Your task to perform on an android device: Nike Air Max 2020 shoes on Nike.com Image 0: 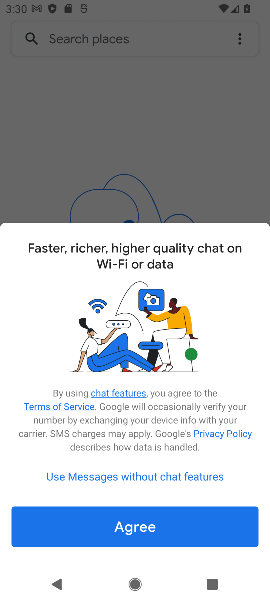
Step 0: press home button
Your task to perform on an android device: Nike Air Max 2020 shoes on Nike.com Image 1: 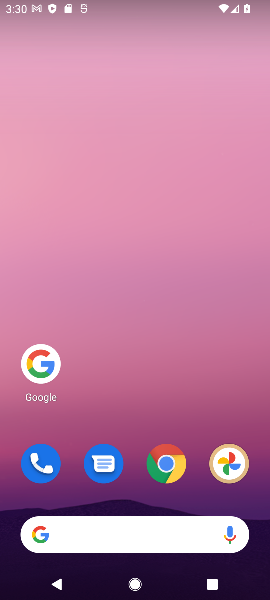
Step 1: click (45, 354)
Your task to perform on an android device: Nike Air Max 2020 shoes on Nike.com Image 2: 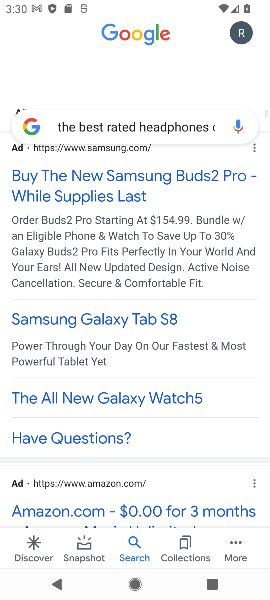
Step 2: click (198, 122)
Your task to perform on an android device: Nike Air Max 2020 shoes on Nike.com Image 3: 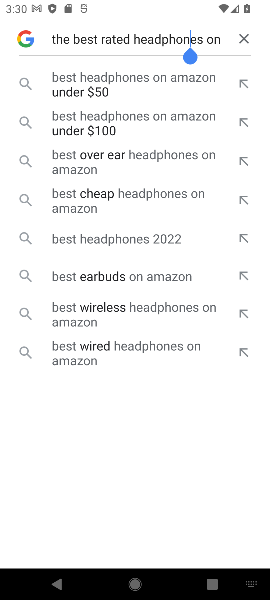
Step 3: click (244, 40)
Your task to perform on an android device: Nike Air Max 2020 shoes on Nike.com Image 4: 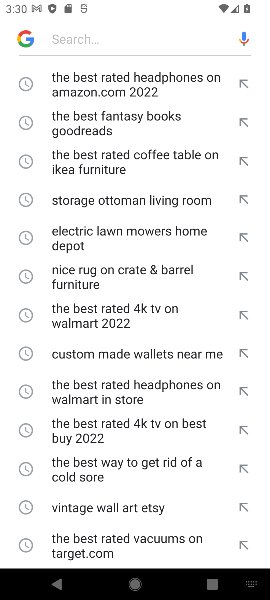
Step 4: click (143, 33)
Your task to perform on an android device: Nike Air Max 2020 shoes on Nike.com Image 5: 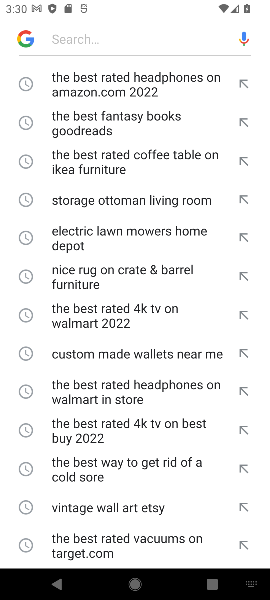
Step 5: type "Nike Air Max 2020 shoes on Nike.com "
Your task to perform on an android device: Nike Air Max 2020 shoes on Nike.com Image 6: 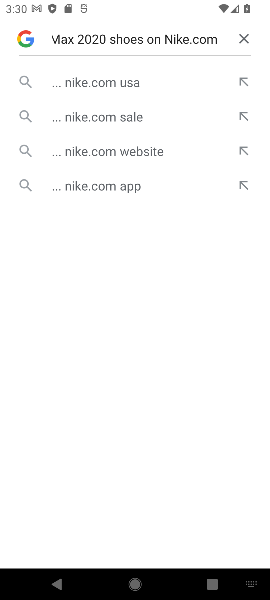
Step 6: click (125, 79)
Your task to perform on an android device: Nike Air Max 2020 shoes on Nike.com Image 7: 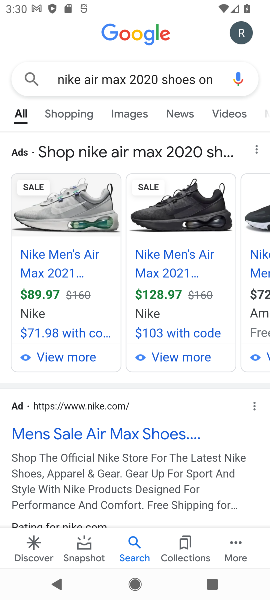
Step 7: task complete